Your task to perform on an android device: What's on my calendar today? Image 0: 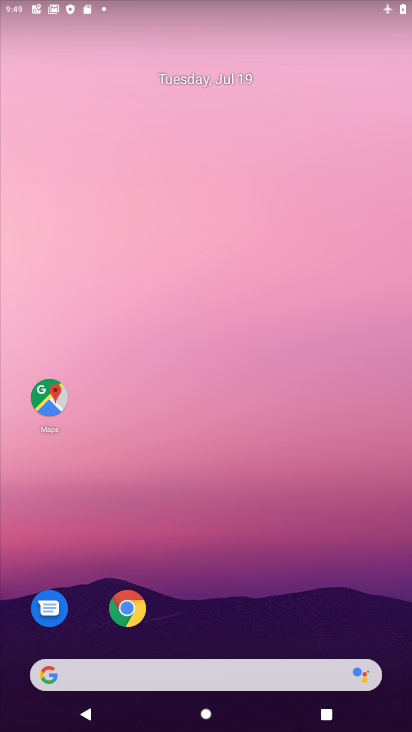
Step 0: drag from (282, 542) to (297, 19)
Your task to perform on an android device: What's on my calendar today? Image 1: 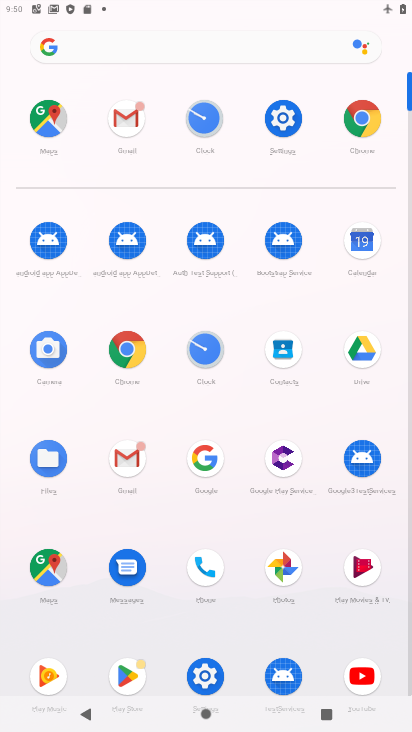
Step 1: click (359, 235)
Your task to perform on an android device: What's on my calendar today? Image 2: 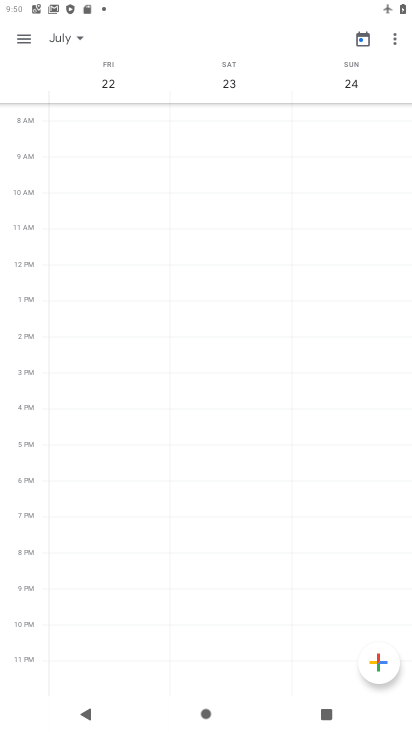
Step 2: click (67, 41)
Your task to perform on an android device: What's on my calendar today? Image 3: 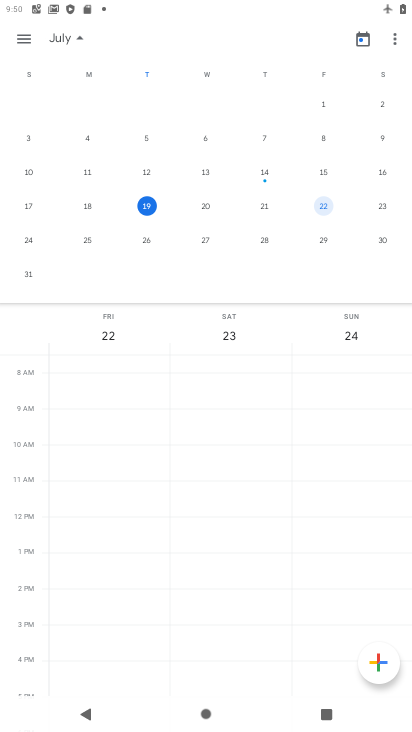
Step 3: click (151, 208)
Your task to perform on an android device: What's on my calendar today? Image 4: 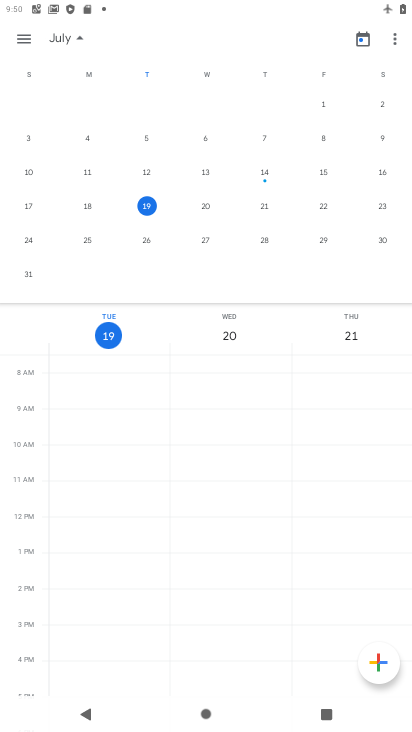
Step 4: task complete